Your task to perform on an android device: turn on sleep mode Image 0: 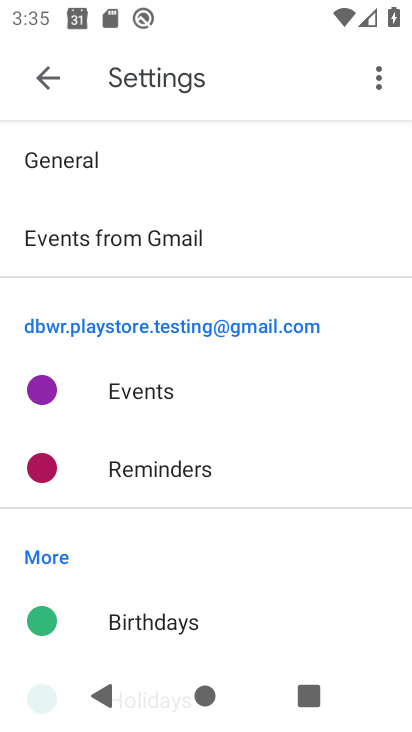
Step 0: press home button
Your task to perform on an android device: turn on sleep mode Image 1: 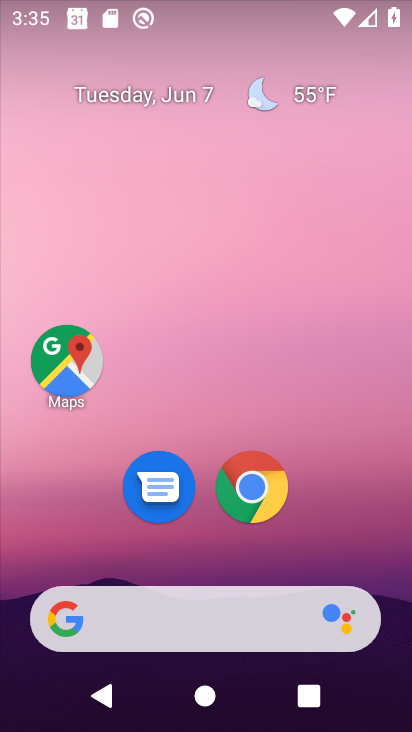
Step 1: drag from (344, 536) to (331, 48)
Your task to perform on an android device: turn on sleep mode Image 2: 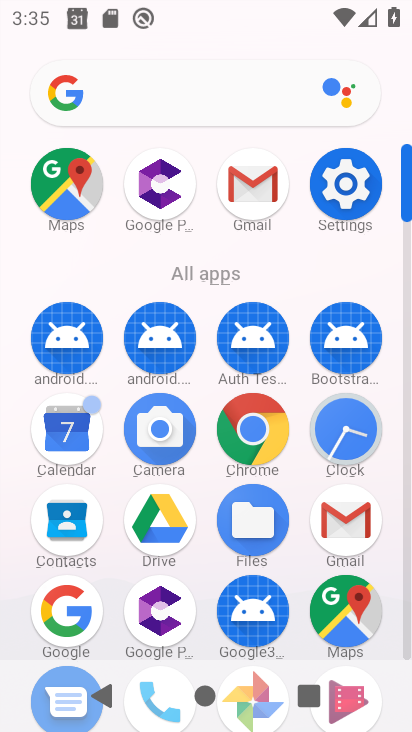
Step 2: click (340, 184)
Your task to perform on an android device: turn on sleep mode Image 3: 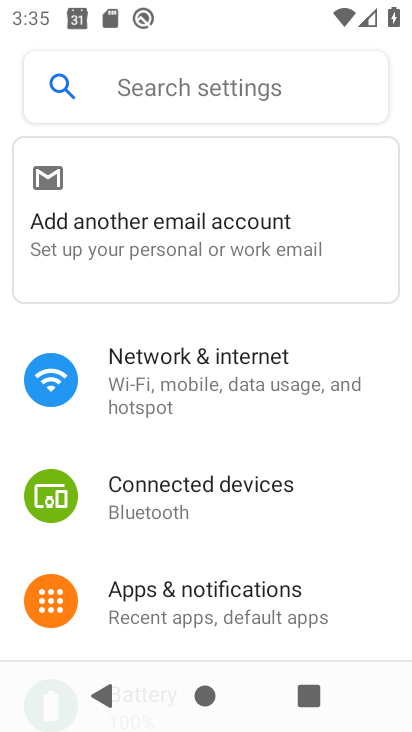
Step 3: drag from (248, 590) to (224, 22)
Your task to perform on an android device: turn on sleep mode Image 4: 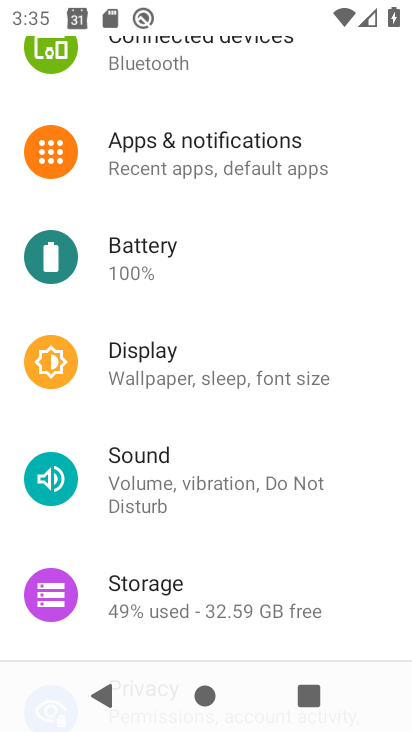
Step 4: click (242, 343)
Your task to perform on an android device: turn on sleep mode Image 5: 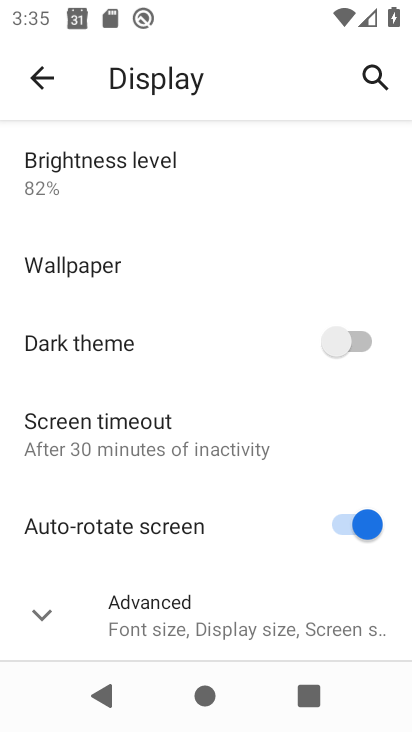
Step 5: click (114, 417)
Your task to perform on an android device: turn on sleep mode Image 6: 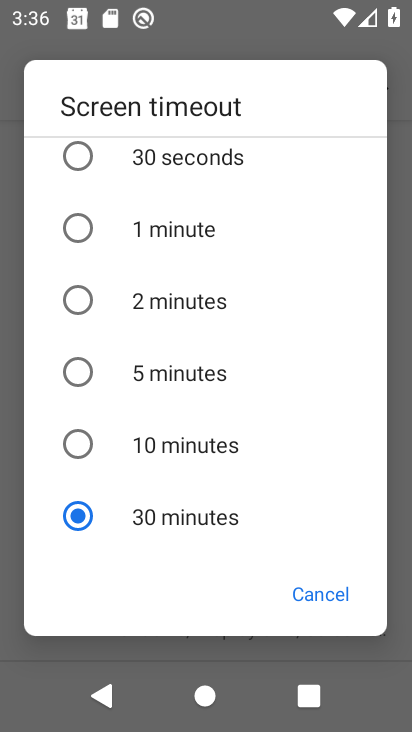
Step 6: task complete